Your task to perform on an android device: set the timer Image 0: 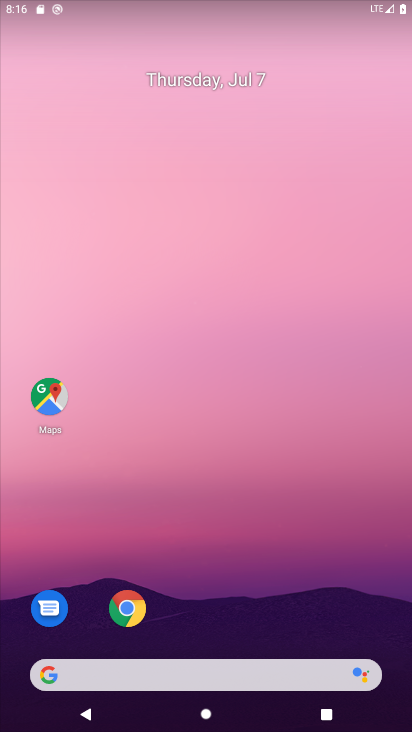
Step 0: drag from (369, 596) to (368, 75)
Your task to perform on an android device: set the timer Image 1: 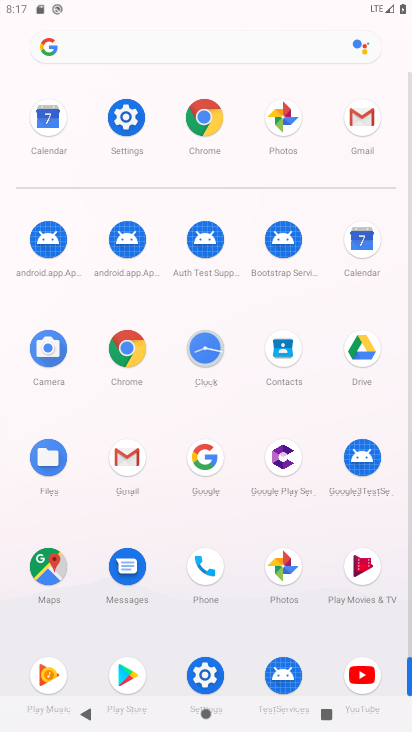
Step 1: click (205, 349)
Your task to perform on an android device: set the timer Image 2: 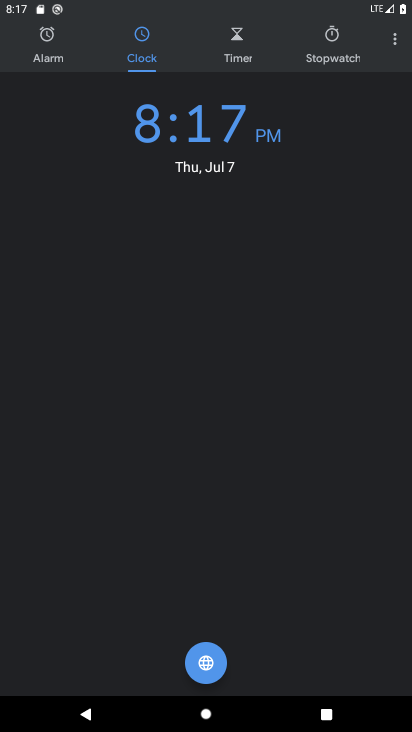
Step 2: click (239, 49)
Your task to perform on an android device: set the timer Image 3: 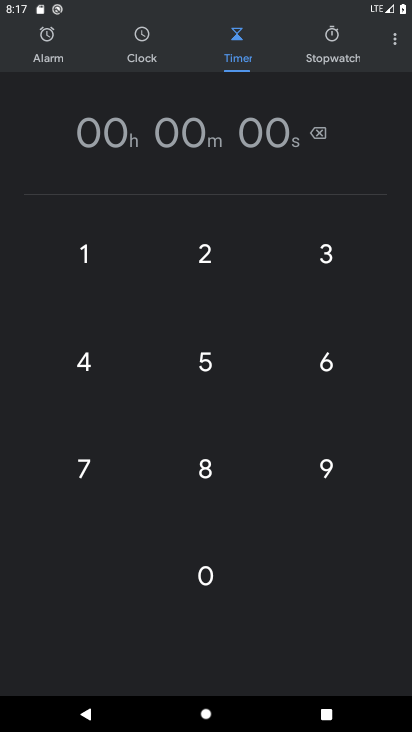
Step 3: click (205, 381)
Your task to perform on an android device: set the timer Image 4: 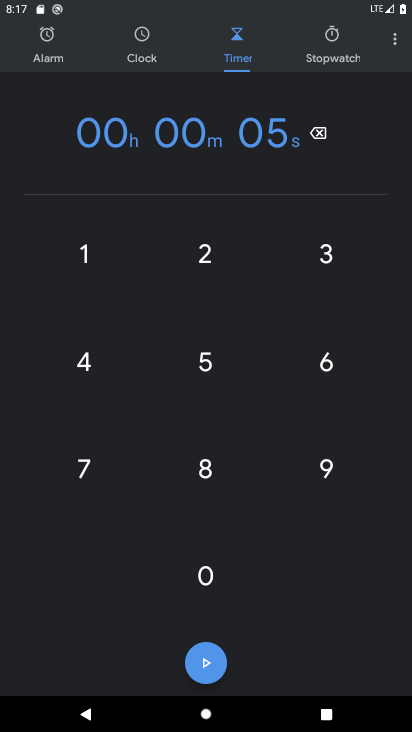
Step 4: task complete